Your task to perform on an android device: turn on priority inbox in the gmail app Image 0: 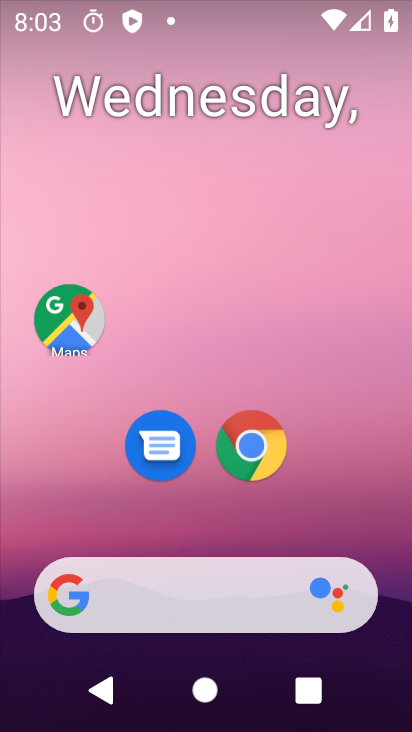
Step 0: drag from (346, 464) to (275, 114)
Your task to perform on an android device: turn on priority inbox in the gmail app Image 1: 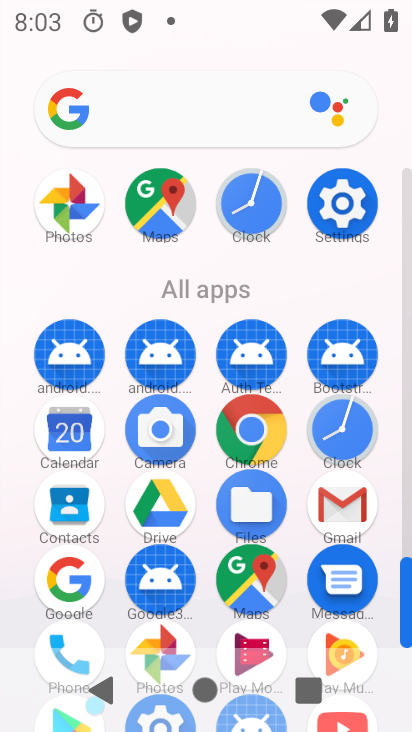
Step 1: click (358, 509)
Your task to perform on an android device: turn on priority inbox in the gmail app Image 2: 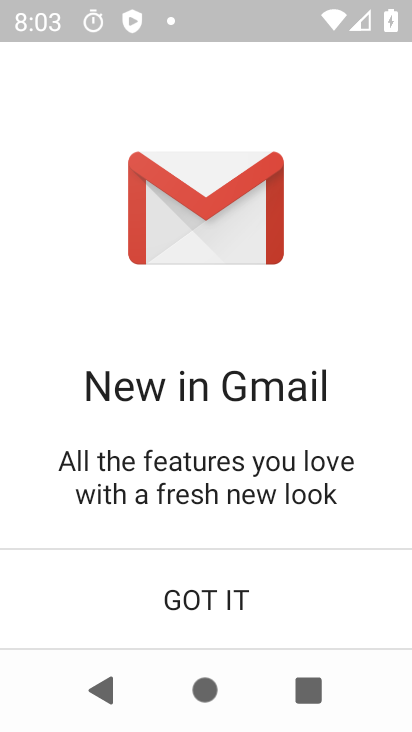
Step 2: click (201, 606)
Your task to perform on an android device: turn on priority inbox in the gmail app Image 3: 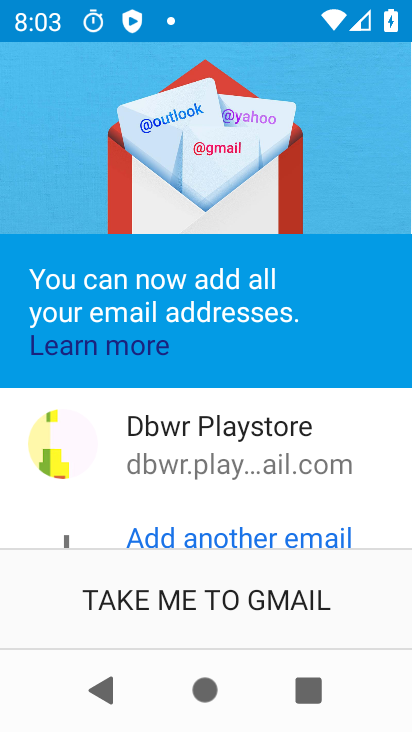
Step 3: click (190, 603)
Your task to perform on an android device: turn on priority inbox in the gmail app Image 4: 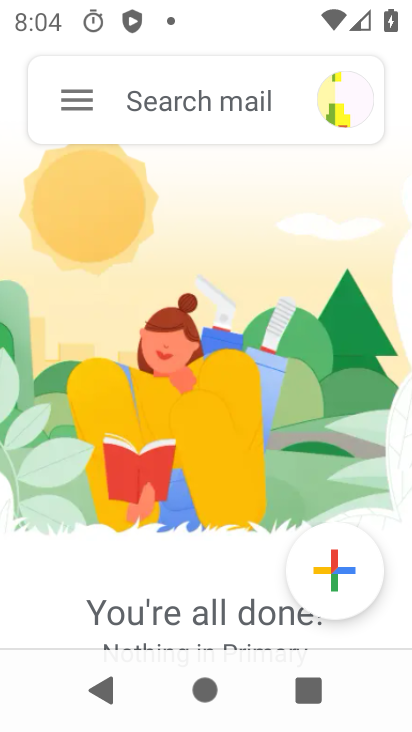
Step 4: click (72, 115)
Your task to perform on an android device: turn on priority inbox in the gmail app Image 5: 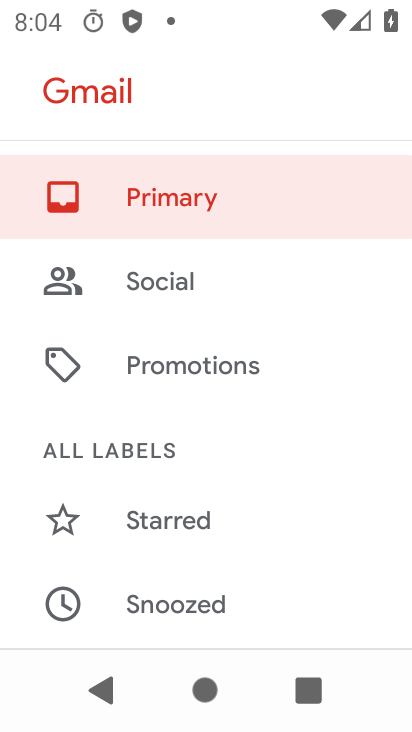
Step 5: drag from (286, 382) to (288, 241)
Your task to perform on an android device: turn on priority inbox in the gmail app Image 6: 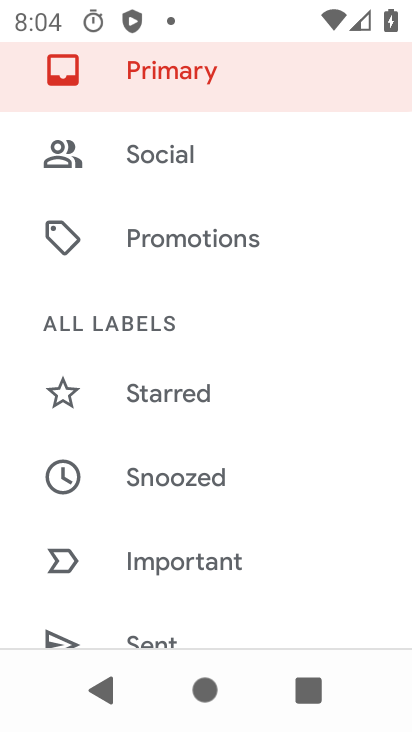
Step 6: drag from (261, 597) to (237, 202)
Your task to perform on an android device: turn on priority inbox in the gmail app Image 7: 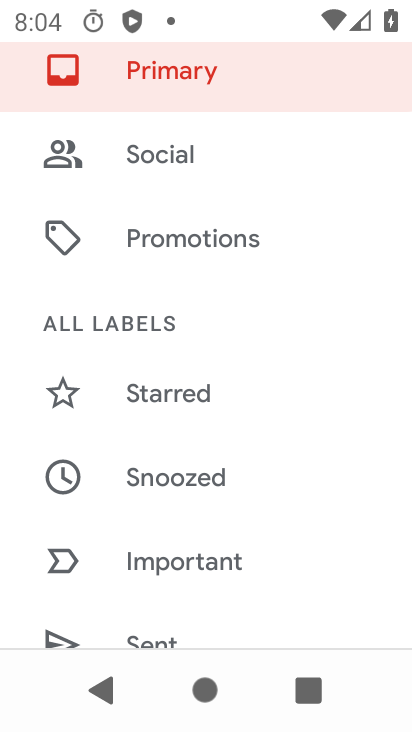
Step 7: drag from (204, 613) to (145, 349)
Your task to perform on an android device: turn on priority inbox in the gmail app Image 8: 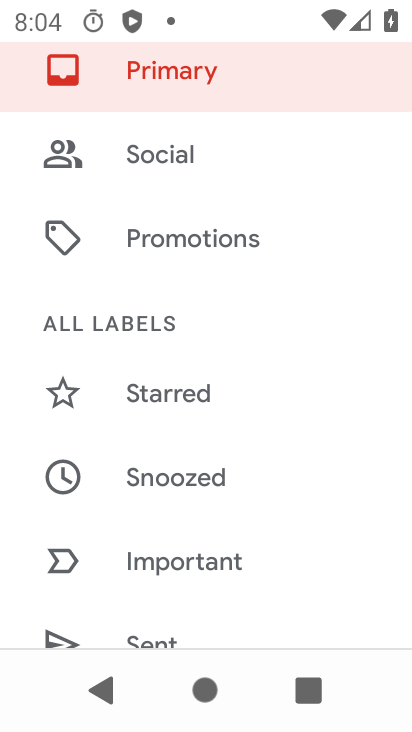
Step 8: drag from (242, 527) to (234, 162)
Your task to perform on an android device: turn on priority inbox in the gmail app Image 9: 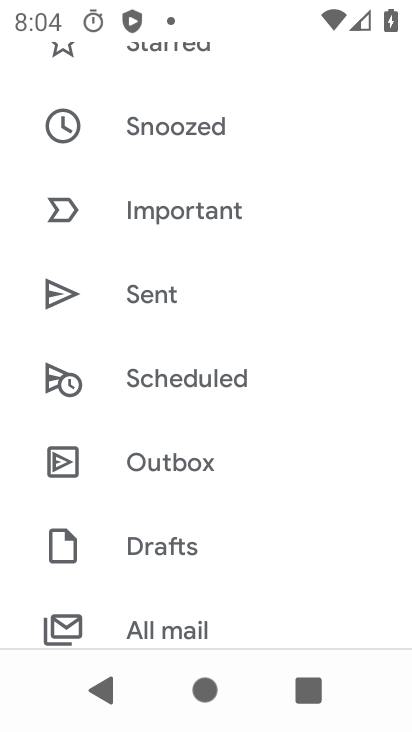
Step 9: drag from (217, 589) to (259, 247)
Your task to perform on an android device: turn on priority inbox in the gmail app Image 10: 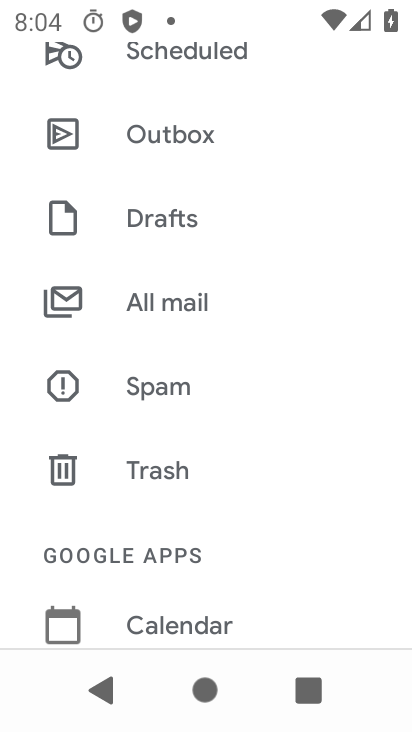
Step 10: drag from (216, 581) to (243, 210)
Your task to perform on an android device: turn on priority inbox in the gmail app Image 11: 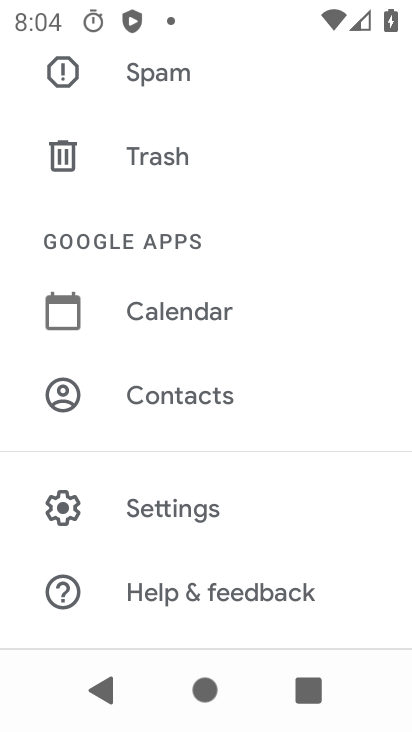
Step 11: click (173, 512)
Your task to perform on an android device: turn on priority inbox in the gmail app Image 12: 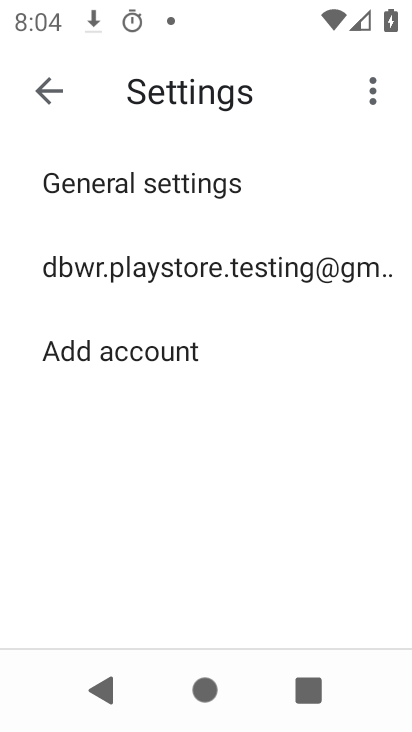
Step 12: click (156, 289)
Your task to perform on an android device: turn on priority inbox in the gmail app Image 13: 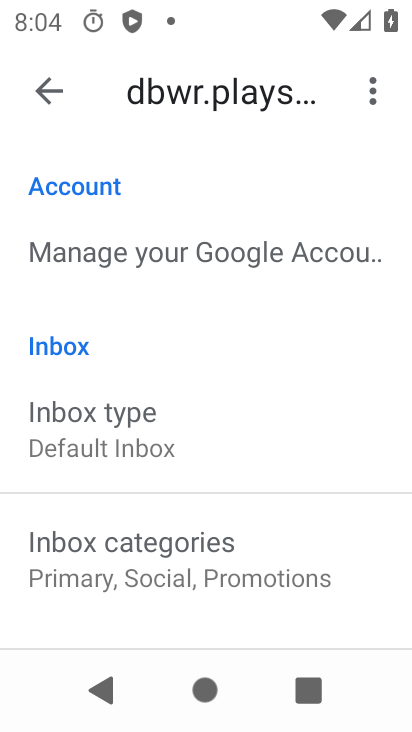
Step 13: click (80, 443)
Your task to perform on an android device: turn on priority inbox in the gmail app Image 14: 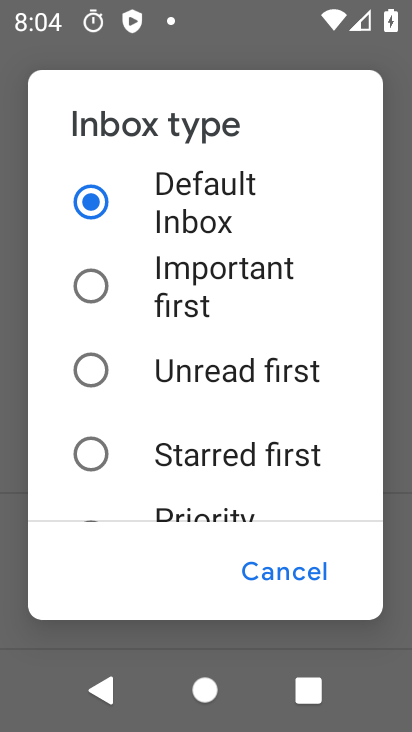
Step 14: click (78, 516)
Your task to perform on an android device: turn on priority inbox in the gmail app Image 15: 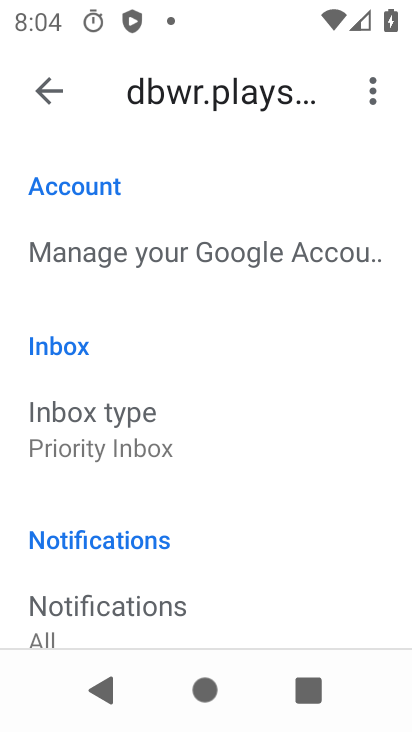
Step 15: task complete